Your task to perform on an android device: Add "macbook pro 13 inch" to the cart on costco, then select checkout. Image 0: 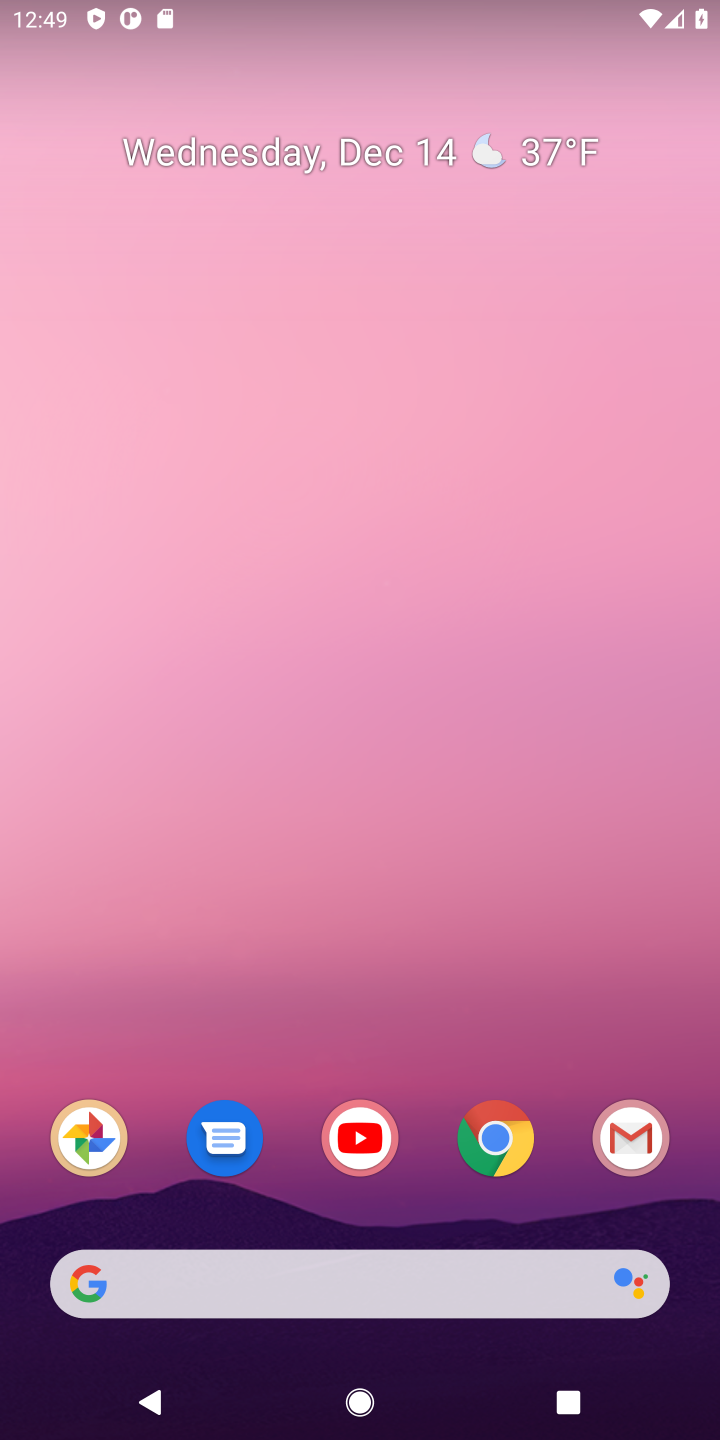
Step 0: click (497, 1144)
Your task to perform on an android device: Add "macbook pro 13 inch" to the cart on costco, then select checkout. Image 1: 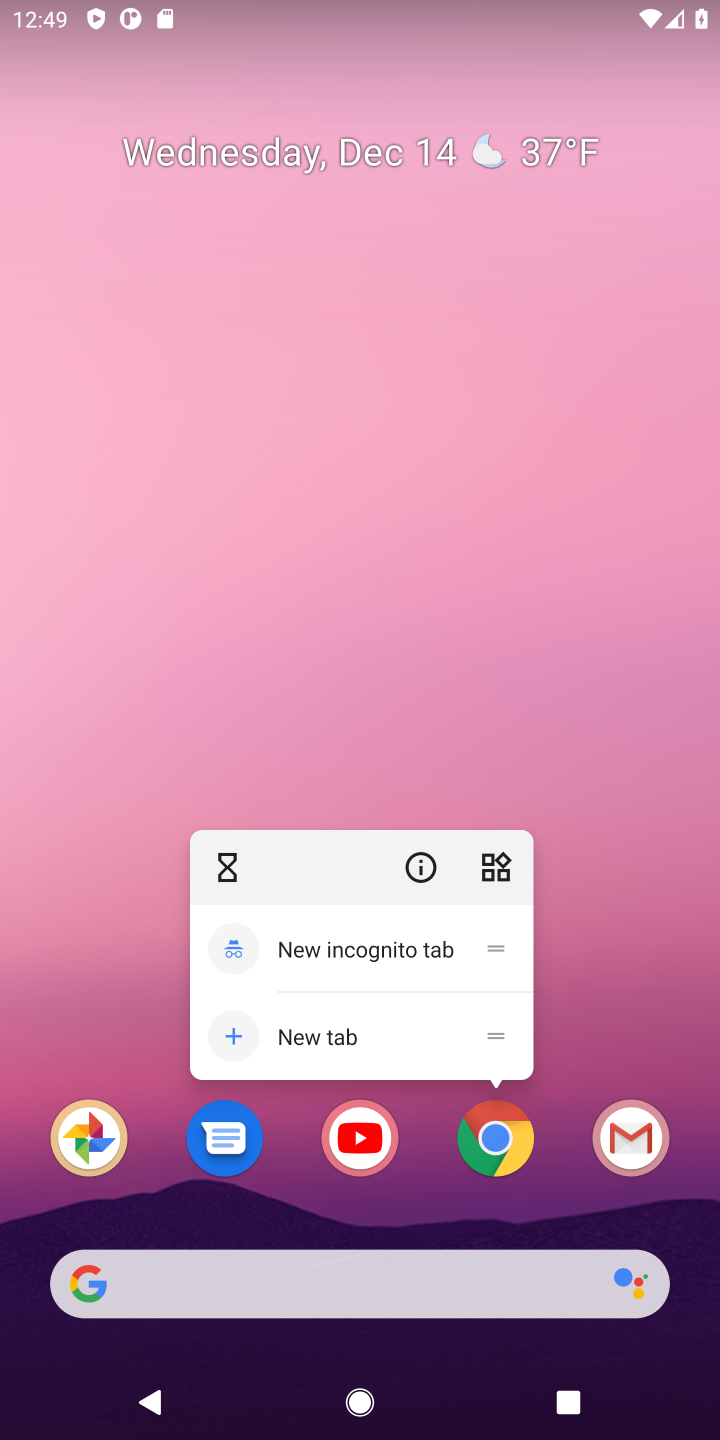
Step 1: click (497, 1144)
Your task to perform on an android device: Add "macbook pro 13 inch" to the cart on costco, then select checkout. Image 2: 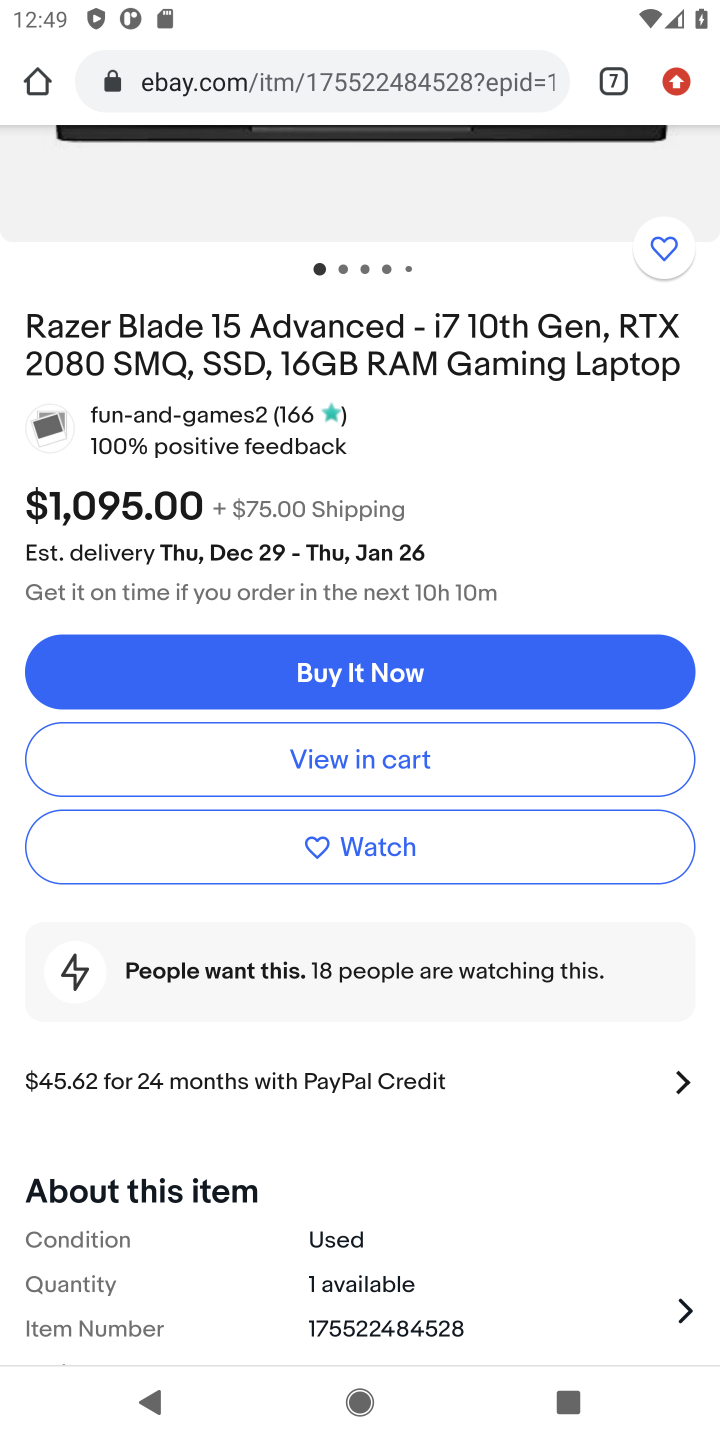
Step 2: click (612, 69)
Your task to perform on an android device: Add "macbook pro 13 inch" to the cart on costco, then select checkout. Image 3: 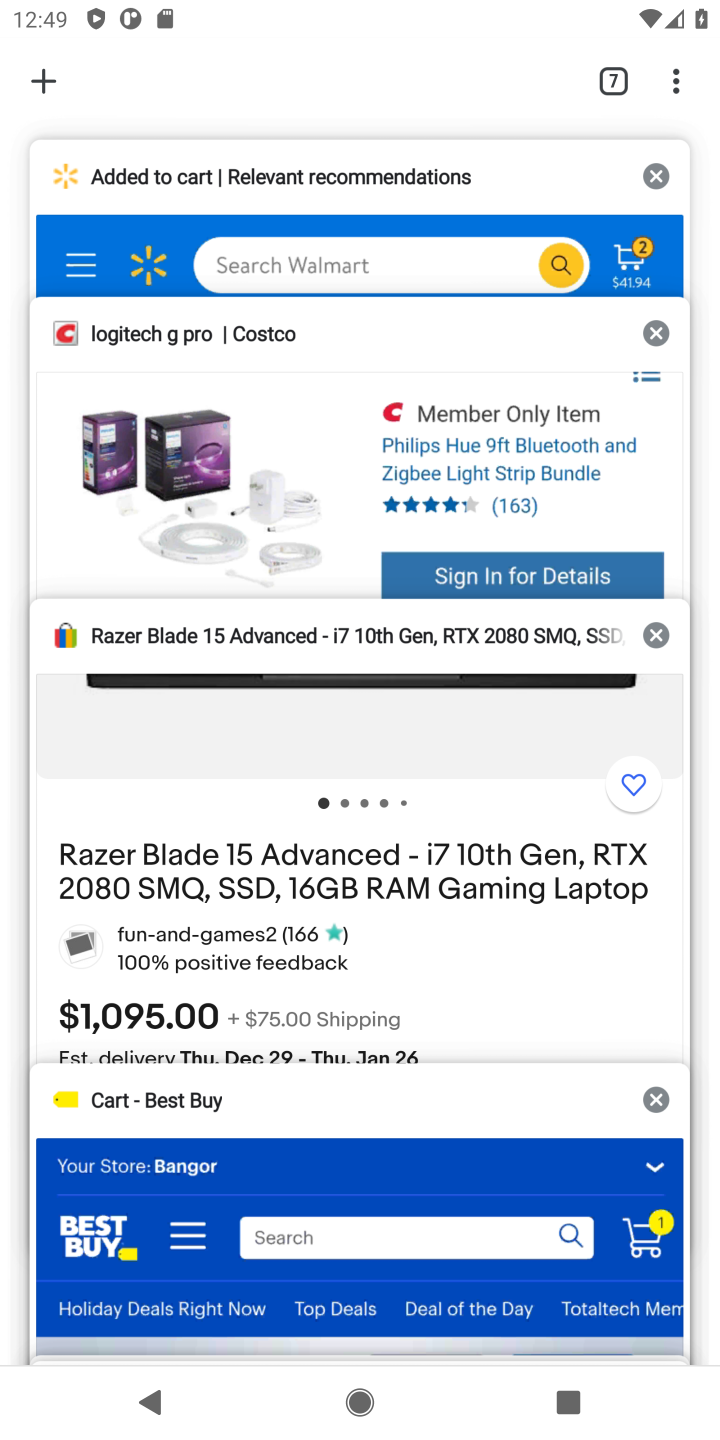
Step 3: click (226, 369)
Your task to perform on an android device: Add "macbook pro 13 inch" to the cart on costco, then select checkout. Image 4: 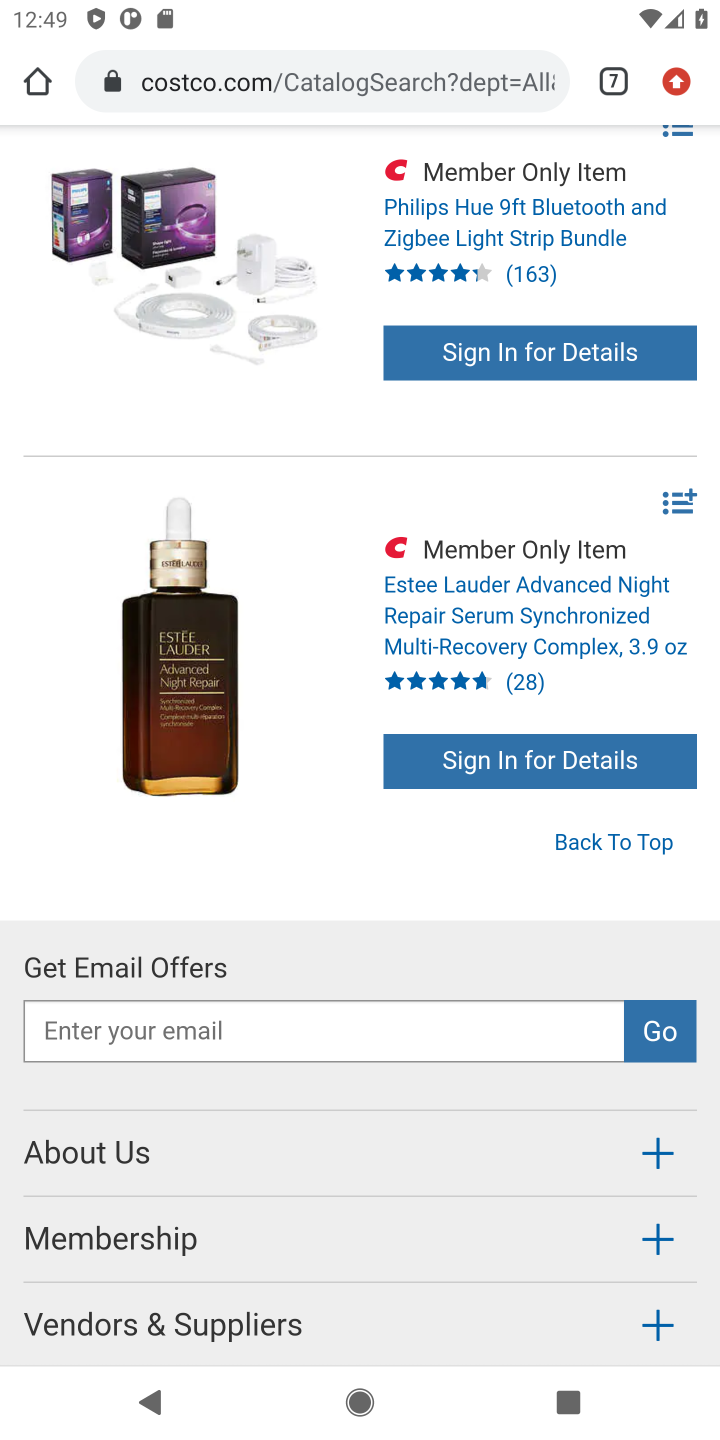
Step 4: drag from (265, 203) to (273, 1214)
Your task to perform on an android device: Add "macbook pro 13 inch" to the cart on costco, then select checkout. Image 5: 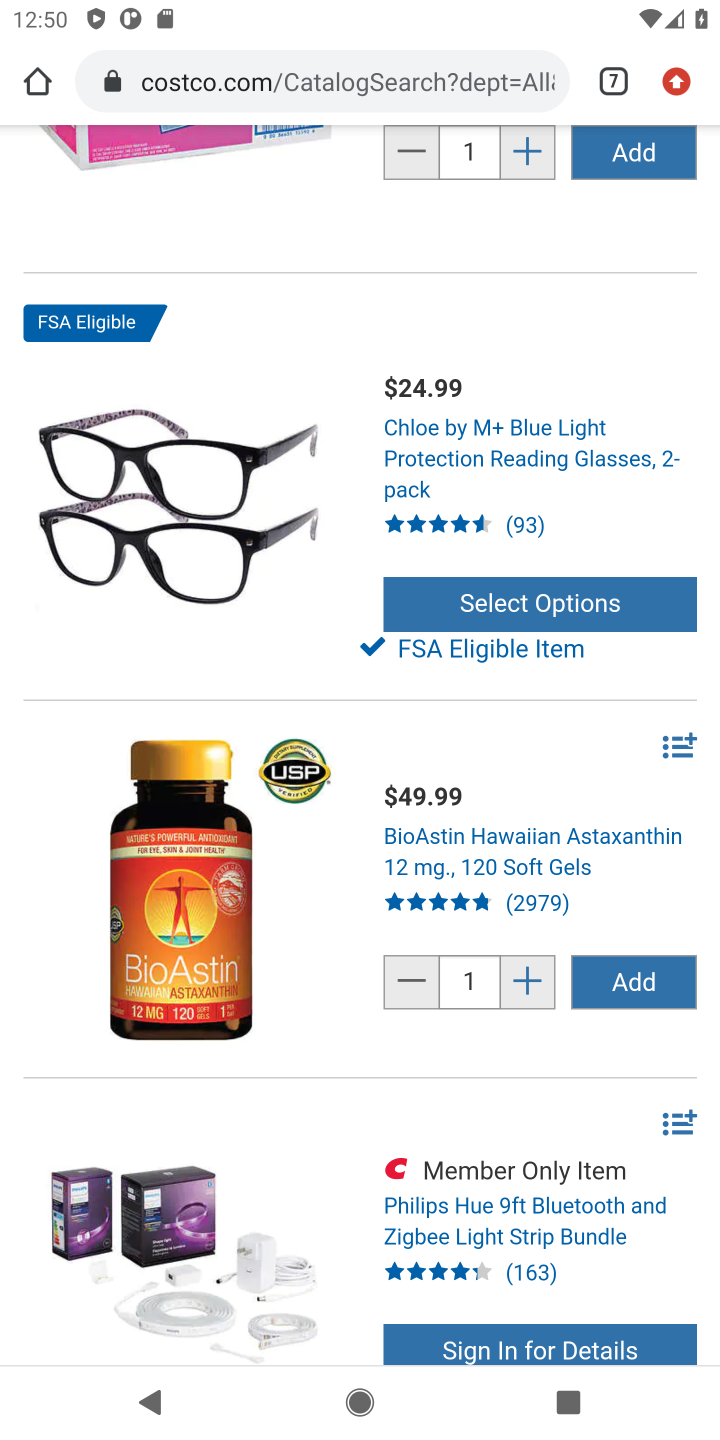
Step 5: drag from (301, 193) to (305, 995)
Your task to perform on an android device: Add "macbook pro 13 inch" to the cart on costco, then select checkout. Image 6: 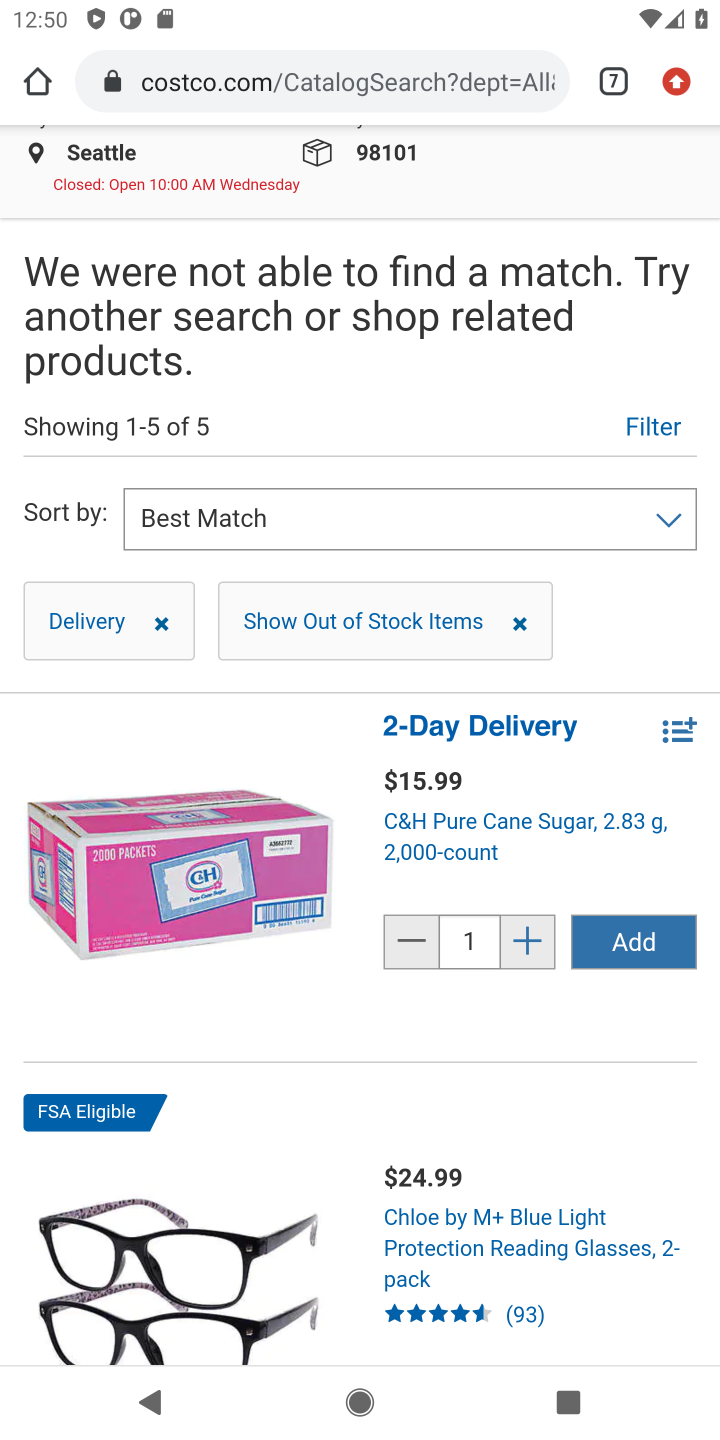
Step 6: drag from (439, 381) to (434, 1118)
Your task to perform on an android device: Add "macbook pro 13 inch" to the cart on costco, then select checkout. Image 7: 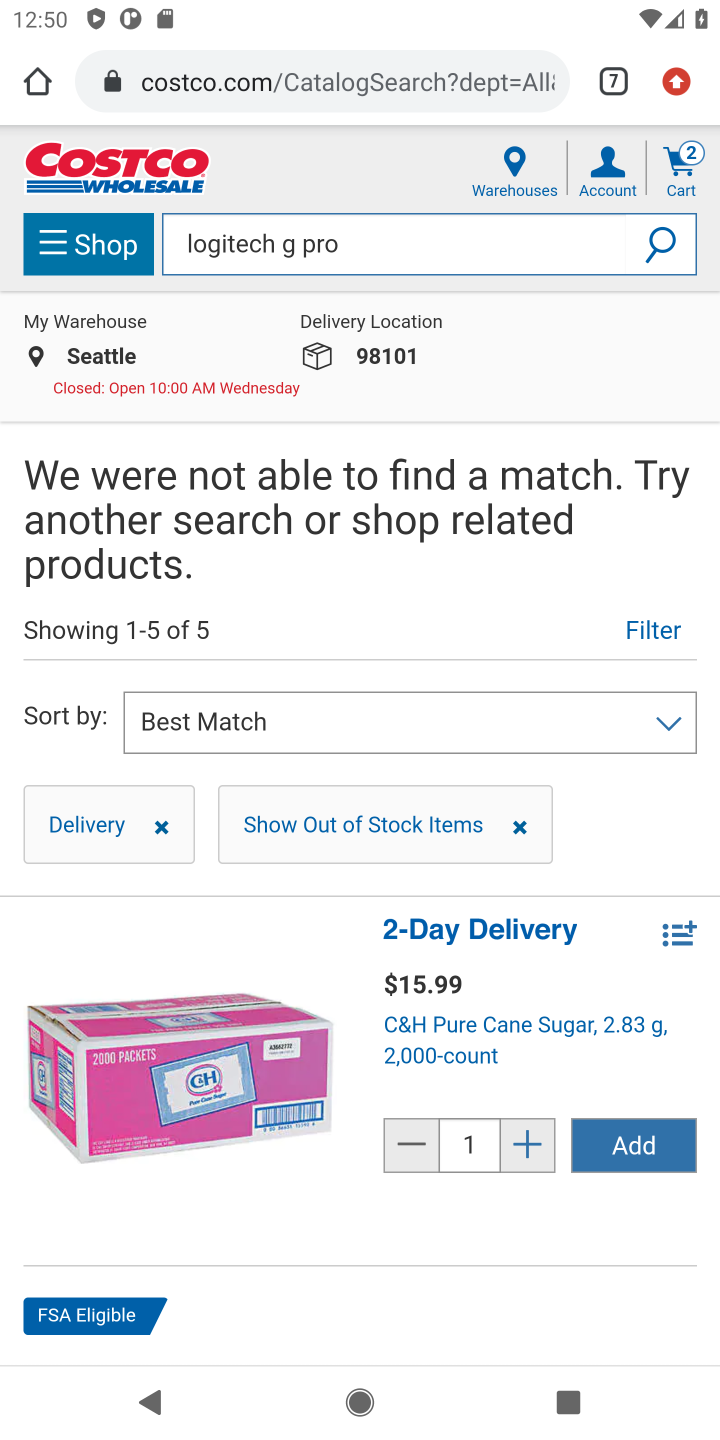
Step 7: click (472, 235)
Your task to perform on an android device: Add "macbook pro 13 inch" to the cart on costco, then select checkout. Image 8: 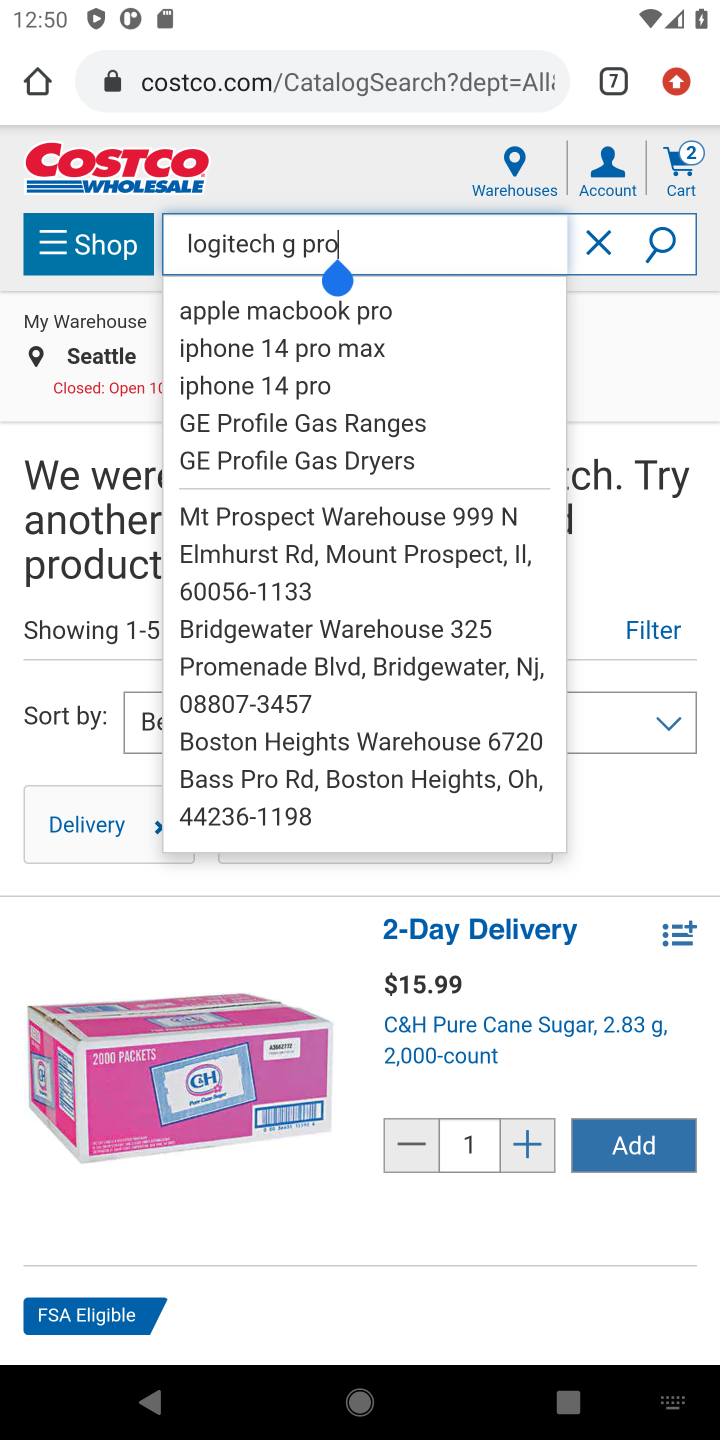
Step 8: click (592, 237)
Your task to perform on an android device: Add "macbook pro 13 inch" to the cart on costco, then select checkout. Image 9: 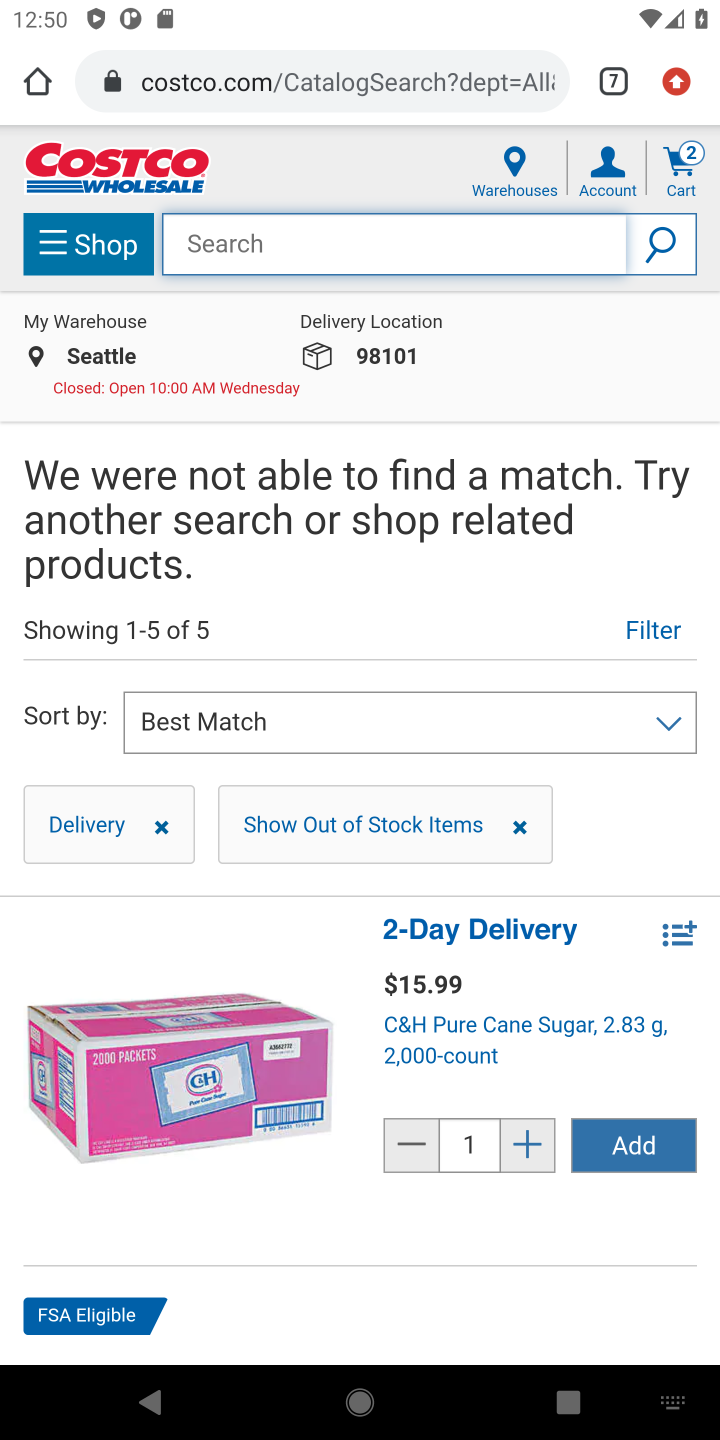
Step 9: type "macbook pro 13 inch"
Your task to perform on an android device: Add "macbook pro 13 inch" to the cart on costco, then select checkout. Image 10: 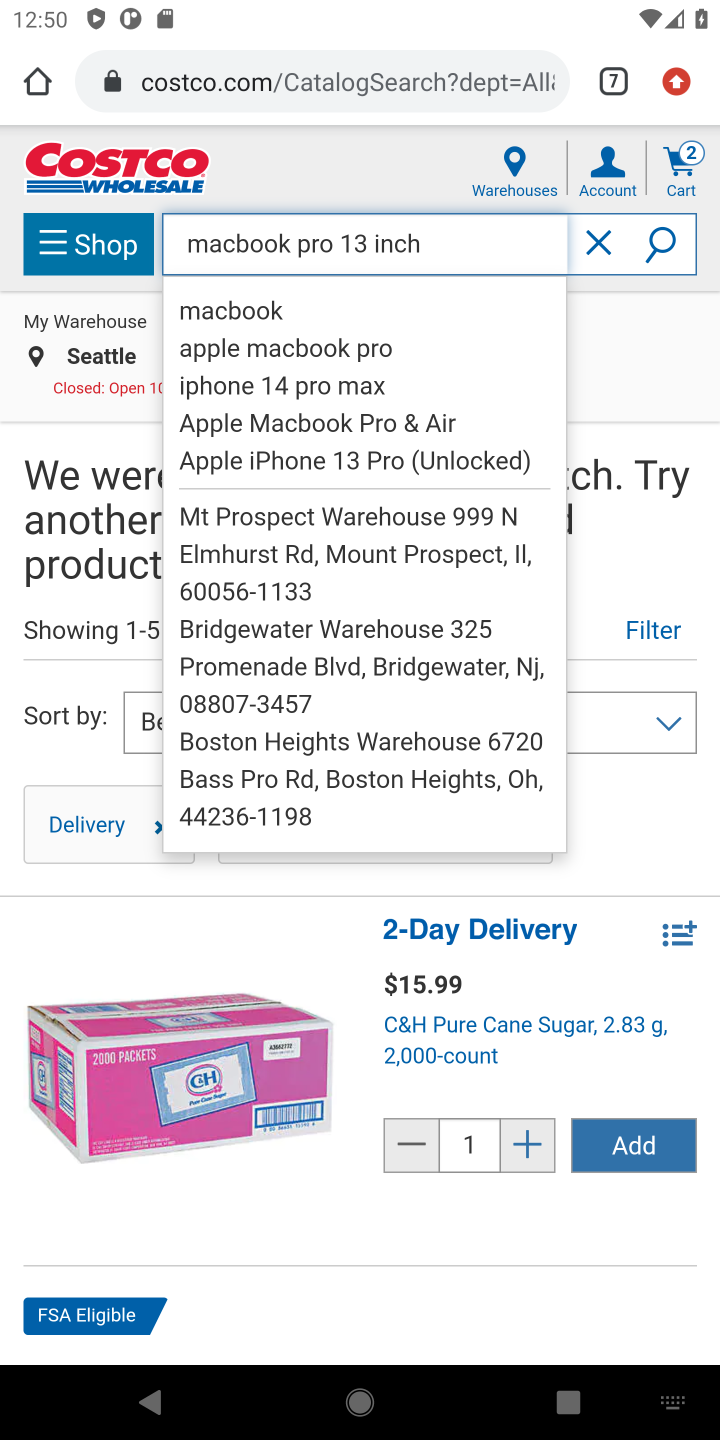
Step 10: click (647, 241)
Your task to perform on an android device: Add "macbook pro 13 inch" to the cart on costco, then select checkout. Image 11: 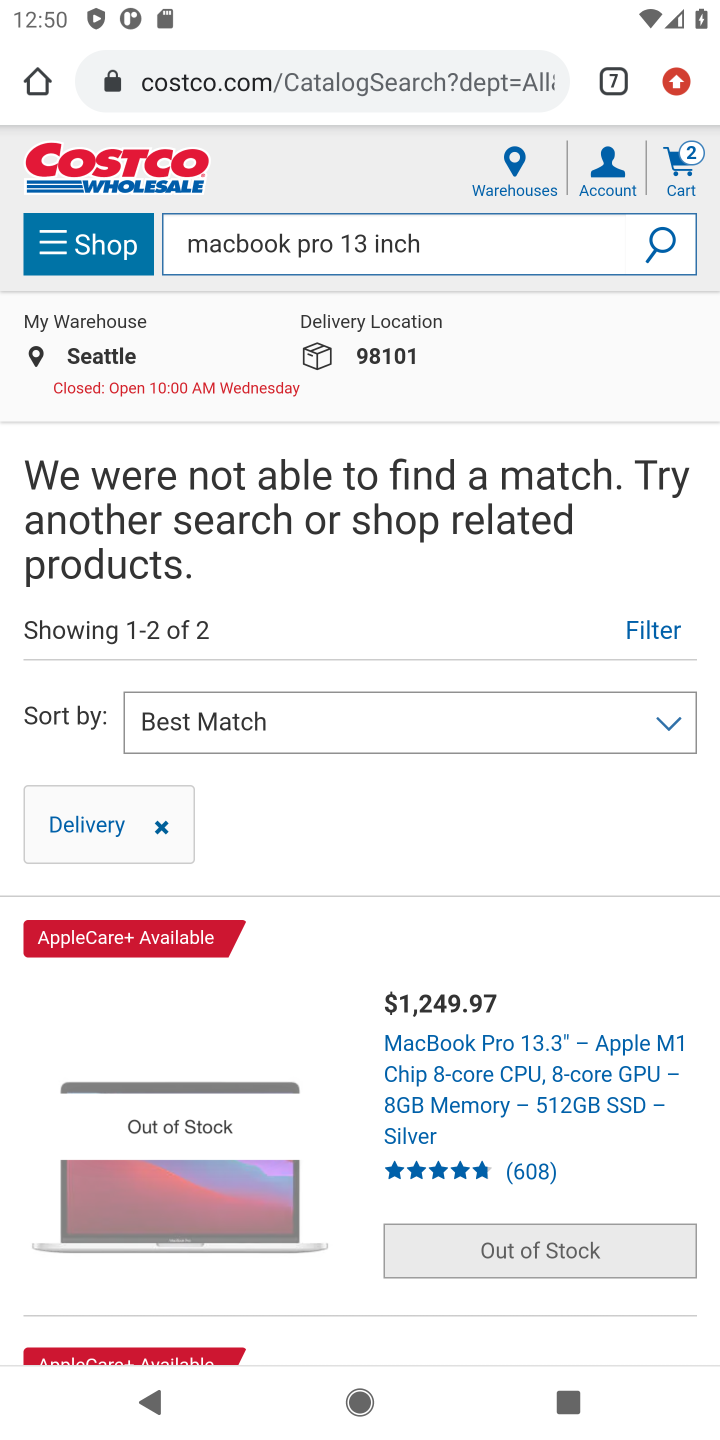
Step 11: task complete